Your task to perform on an android device: turn off notifications settings in the gmail app Image 0: 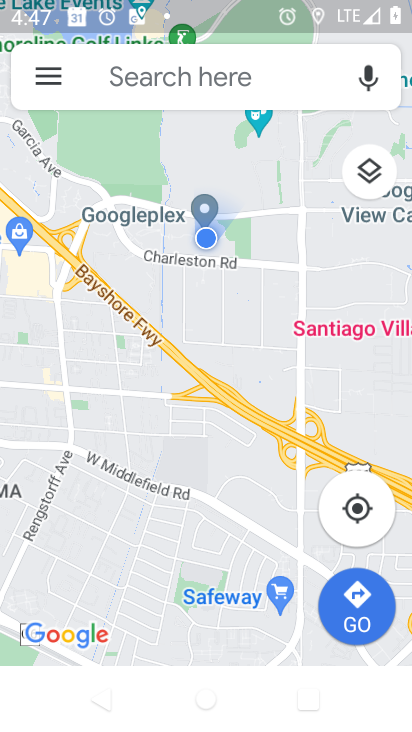
Step 0: press back button
Your task to perform on an android device: turn off notifications settings in the gmail app Image 1: 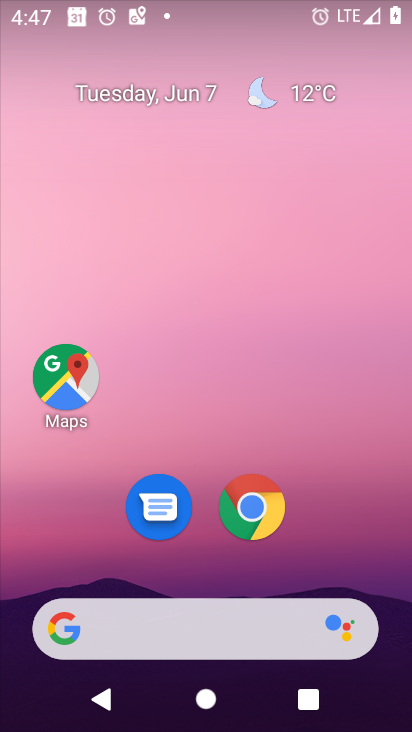
Step 1: drag from (381, 535) to (284, 8)
Your task to perform on an android device: turn off notifications settings in the gmail app Image 2: 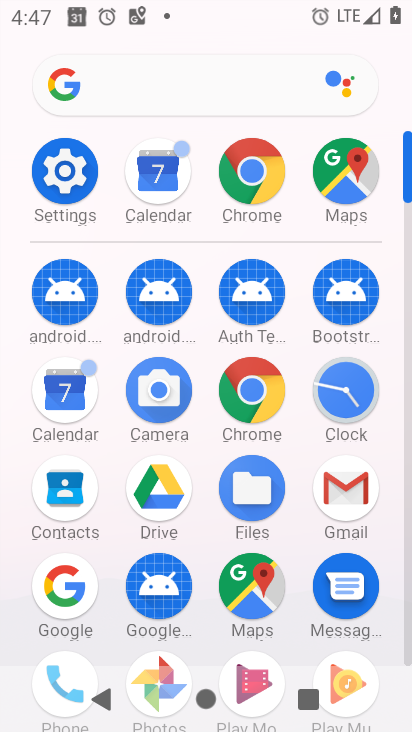
Step 2: drag from (9, 585) to (26, 198)
Your task to perform on an android device: turn off notifications settings in the gmail app Image 3: 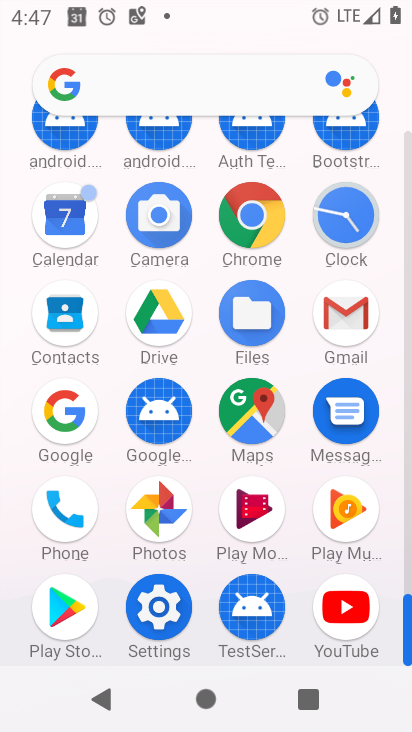
Step 3: click (346, 304)
Your task to perform on an android device: turn off notifications settings in the gmail app Image 4: 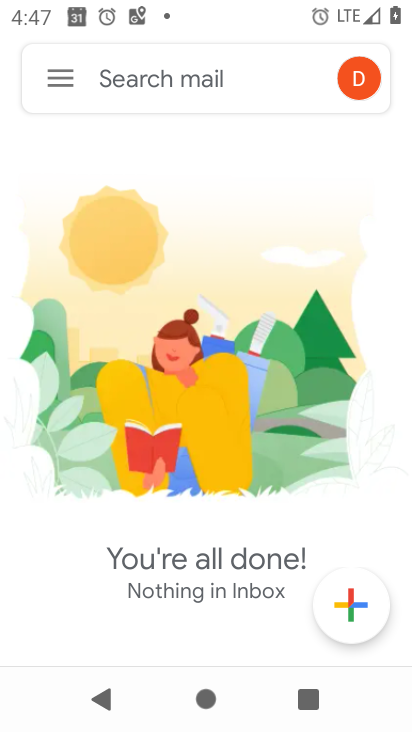
Step 4: click (64, 77)
Your task to perform on an android device: turn off notifications settings in the gmail app Image 5: 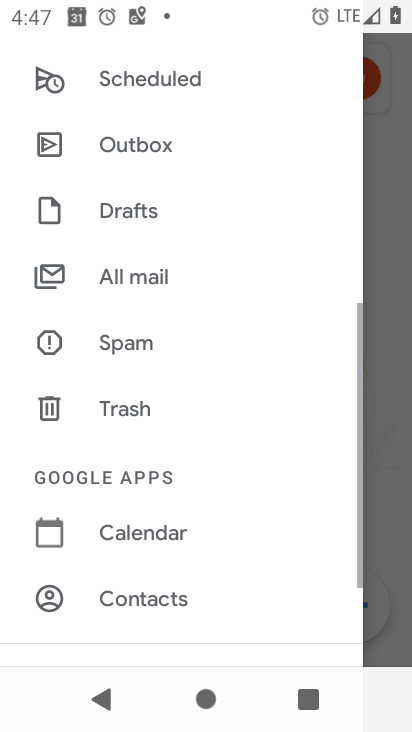
Step 5: drag from (199, 560) to (220, 144)
Your task to perform on an android device: turn off notifications settings in the gmail app Image 6: 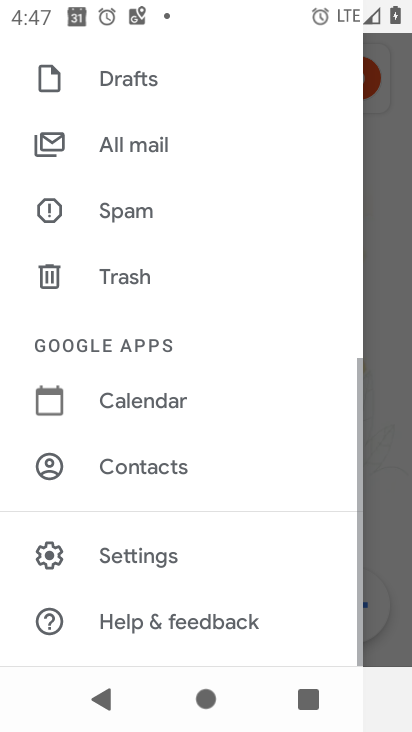
Step 6: click (151, 532)
Your task to perform on an android device: turn off notifications settings in the gmail app Image 7: 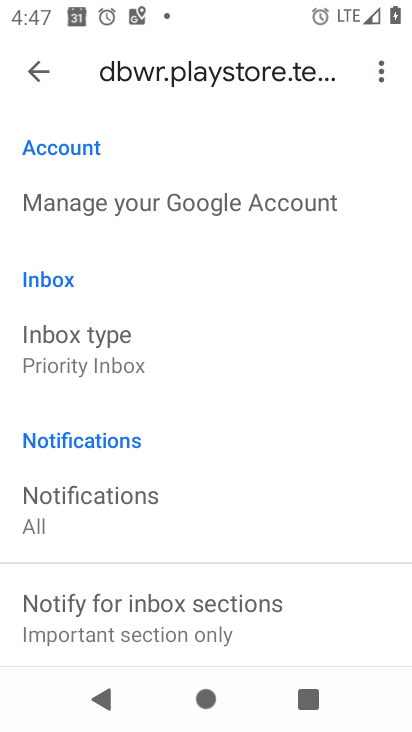
Step 7: drag from (228, 575) to (244, 195)
Your task to perform on an android device: turn off notifications settings in the gmail app Image 8: 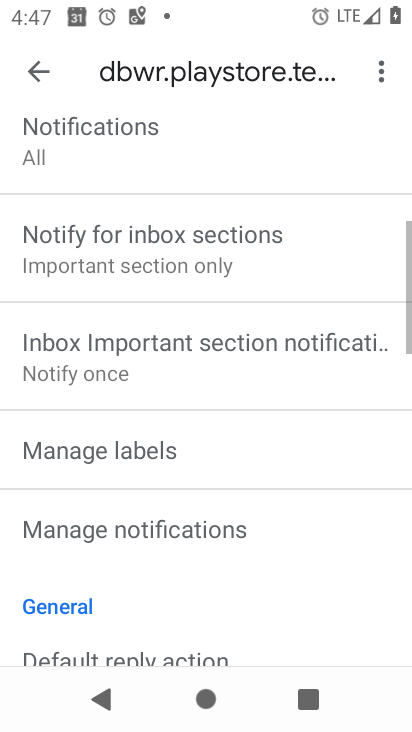
Step 8: click (208, 527)
Your task to perform on an android device: turn off notifications settings in the gmail app Image 9: 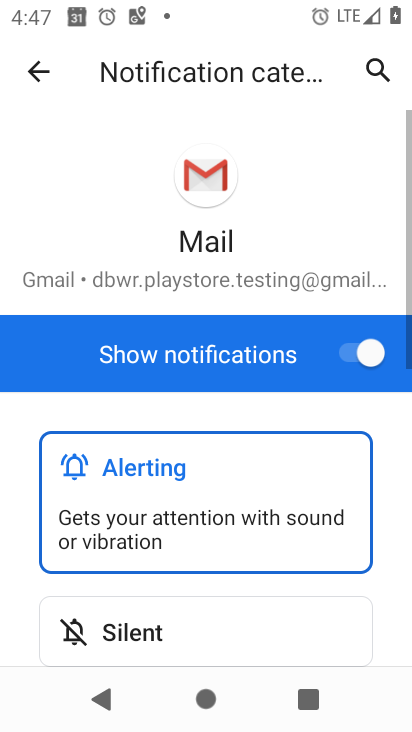
Step 9: click (359, 336)
Your task to perform on an android device: turn off notifications settings in the gmail app Image 10: 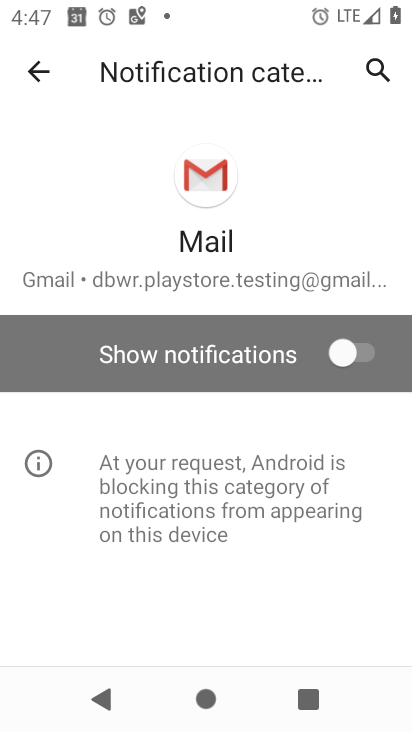
Step 10: task complete